Your task to perform on an android device: toggle airplane mode Image 0: 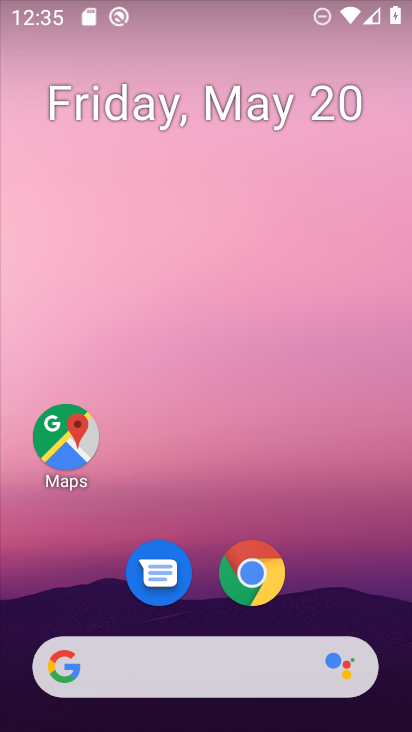
Step 0: drag from (200, 727) to (169, 132)
Your task to perform on an android device: toggle airplane mode Image 1: 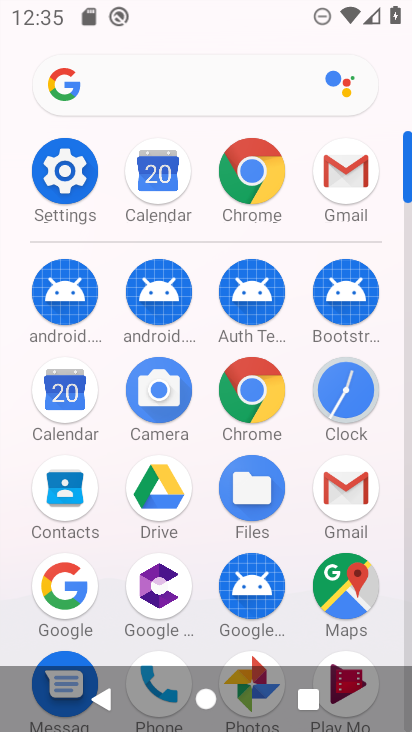
Step 1: click (60, 168)
Your task to perform on an android device: toggle airplane mode Image 2: 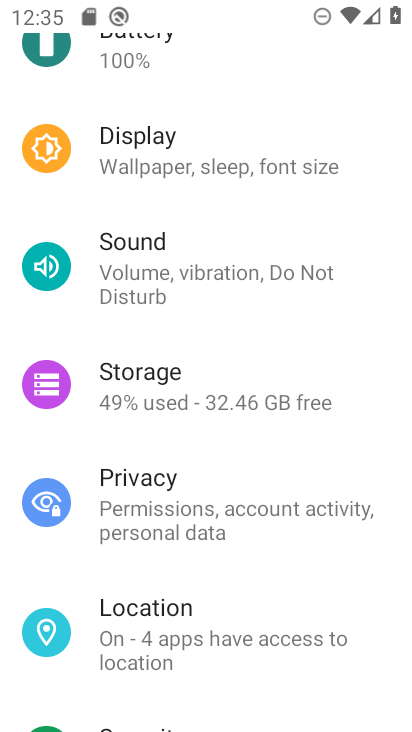
Step 2: drag from (190, 190) to (191, 548)
Your task to perform on an android device: toggle airplane mode Image 3: 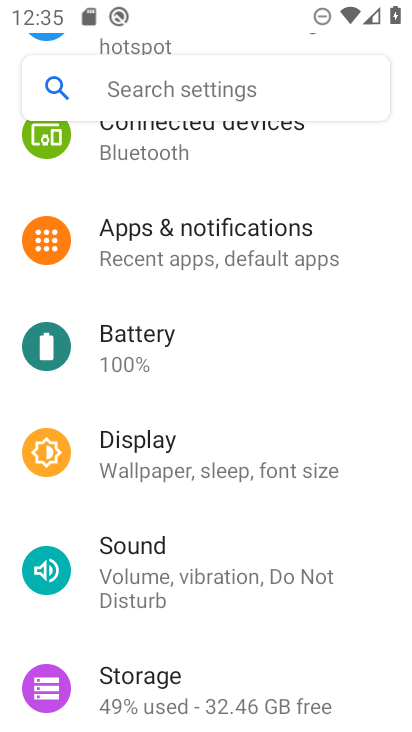
Step 3: drag from (246, 187) to (243, 597)
Your task to perform on an android device: toggle airplane mode Image 4: 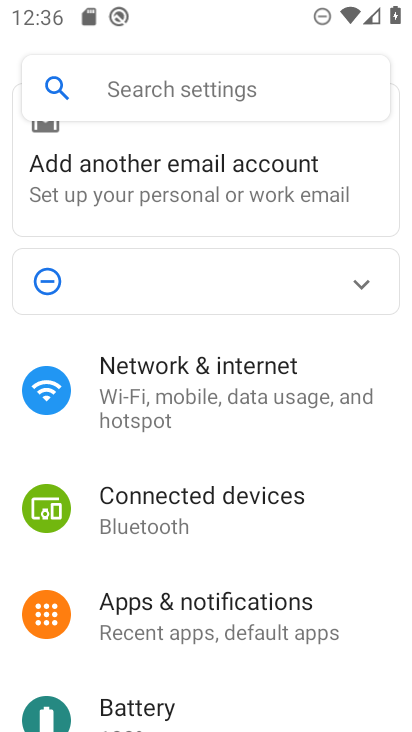
Step 4: click (160, 388)
Your task to perform on an android device: toggle airplane mode Image 5: 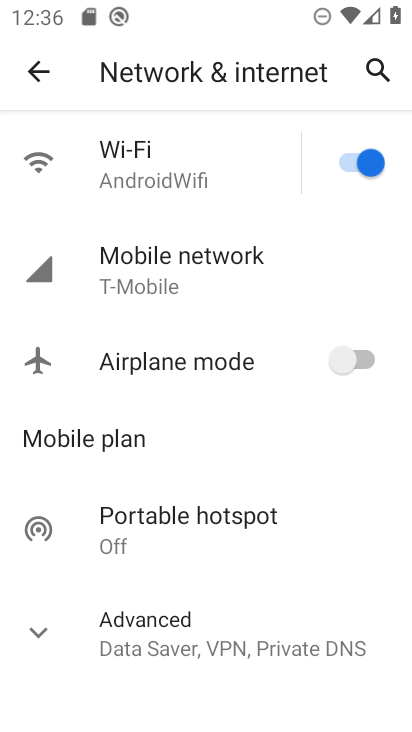
Step 5: click (363, 361)
Your task to perform on an android device: toggle airplane mode Image 6: 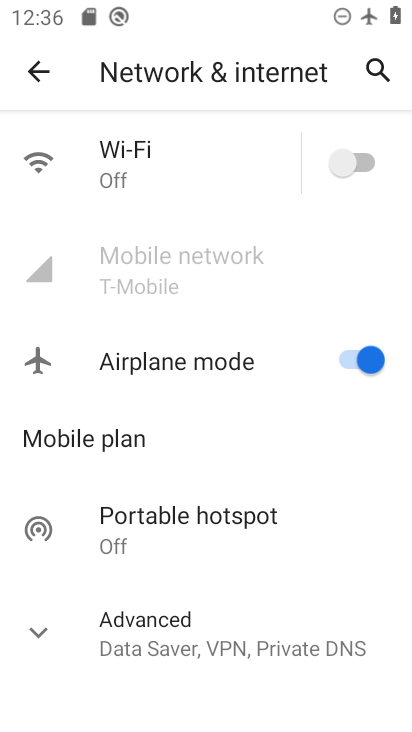
Step 6: task complete